Your task to perform on an android device: Do I have any events tomorrow? Image 0: 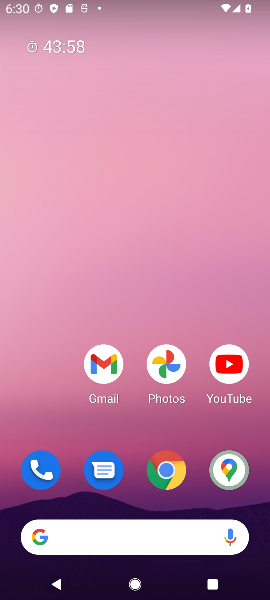
Step 0: press home button
Your task to perform on an android device: Do I have any events tomorrow? Image 1: 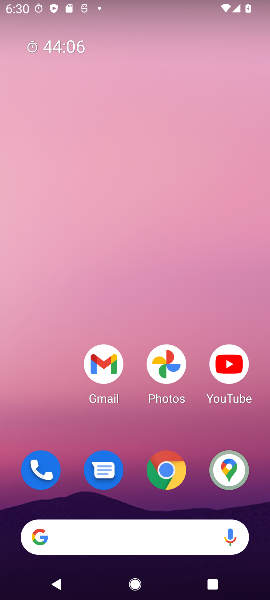
Step 1: drag from (152, 480) to (128, 11)
Your task to perform on an android device: Do I have any events tomorrow? Image 2: 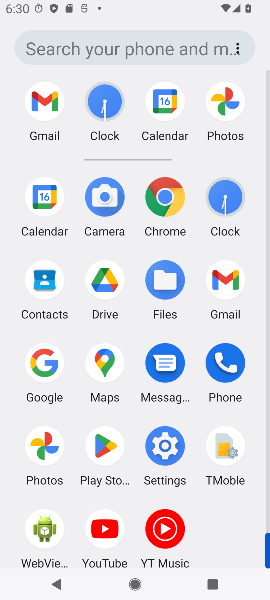
Step 2: click (48, 198)
Your task to perform on an android device: Do I have any events tomorrow? Image 3: 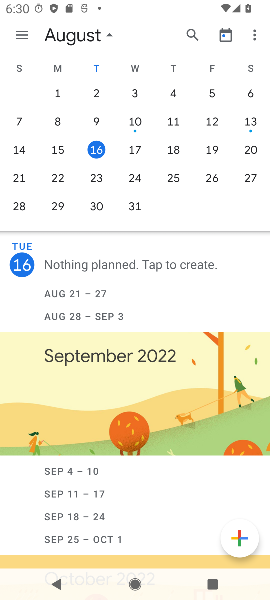
Step 3: click (137, 148)
Your task to perform on an android device: Do I have any events tomorrow? Image 4: 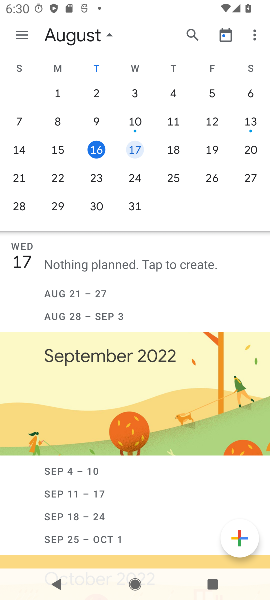
Step 4: task complete